Your task to perform on an android device: toggle show notifications on the lock screen Image 0: 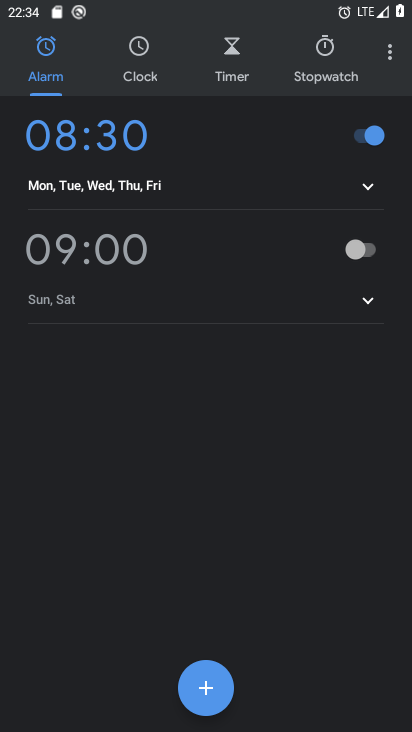
Step 0: press home button
Your task to perform on an android device: toggle show notifications on the lock screen Image 1: 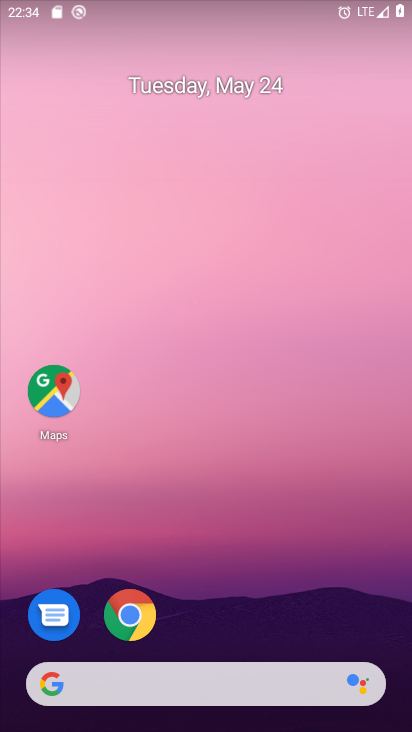
Step 1: drag from (228, 602) to (271, 142)
Your task to perform on an android device: toggle show notifications on the lock screen Image 2: 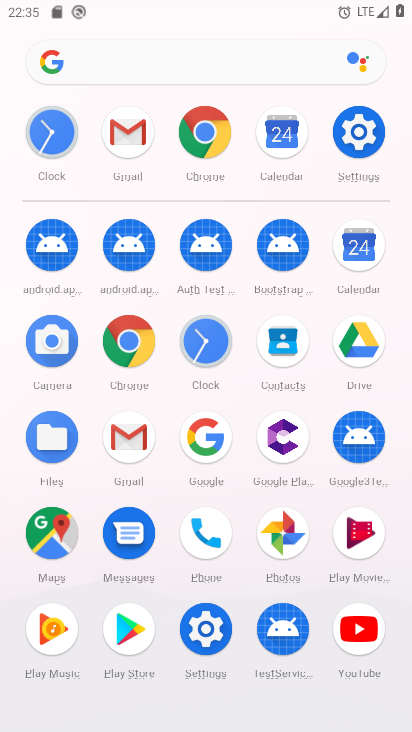
Step 2: click (210, 618)
Your task to perform on an android device: toggle show notifications on the lock screen Image 3: 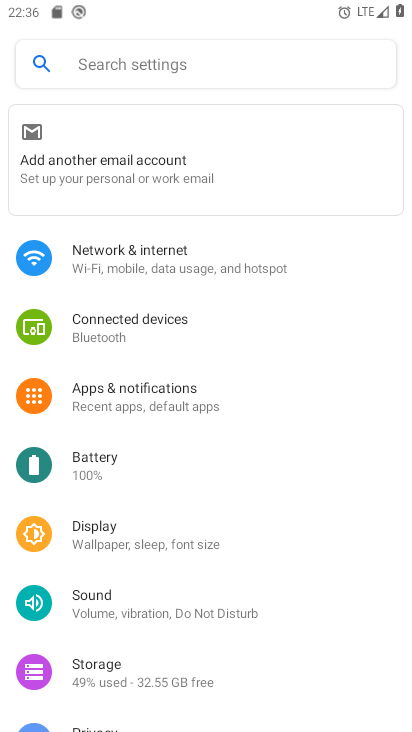
Step 3: click (127, 379)
Your task to perform on an android device: toggle show notifications on the lock screen Image 4: 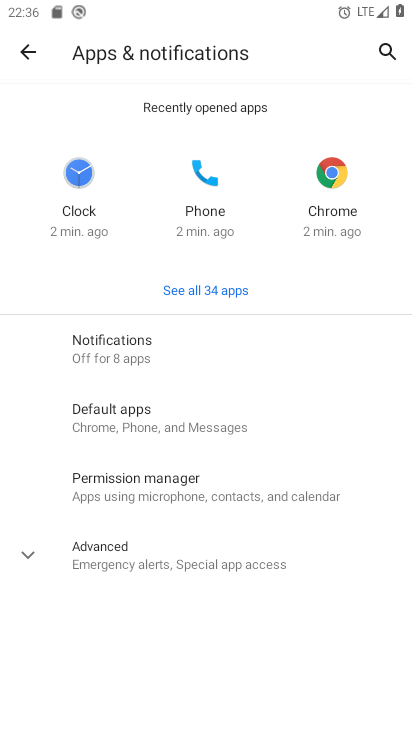
Step 4: click (114, 347)
Your task to perform on an android device: toggle show notifications on the lock screen Image 5: 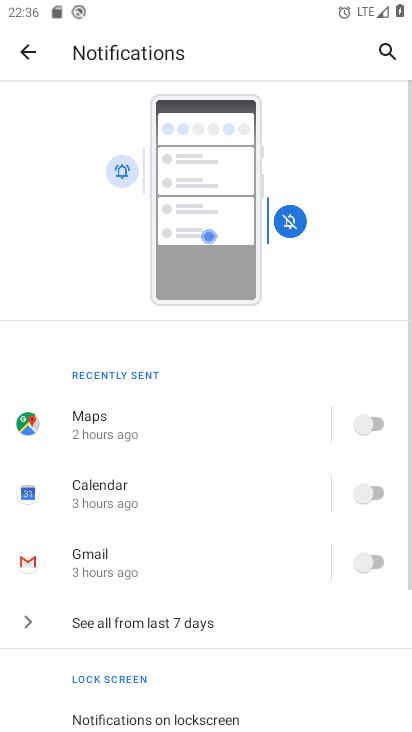
Step 5: drag from (209, 616) to (281, 298)
Your task to perform on an android device: toggle show notifications on the lock screen Image 6: 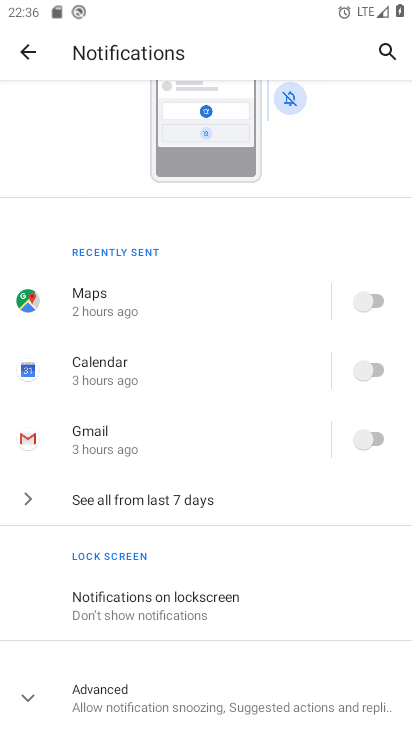
Step 6: click (184, 577)
Your task to perform on an android device: toggle show notifications on the lock screen Image 7: 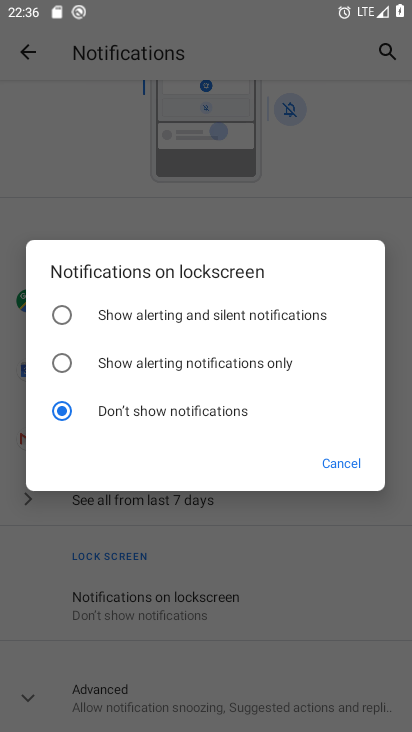
Step 7: click (121, 357)
Your task to perform on an android device: toggle show notifications on the lock screen Image 8: 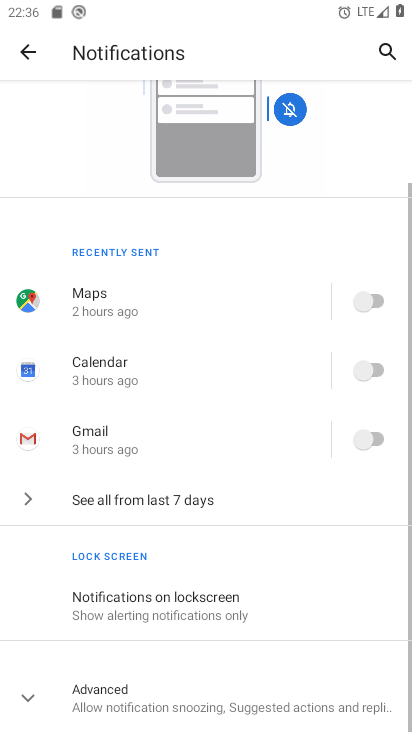
Step 8: task complete